Your task to perform on an android device: clear history in the chrome app Image 0: 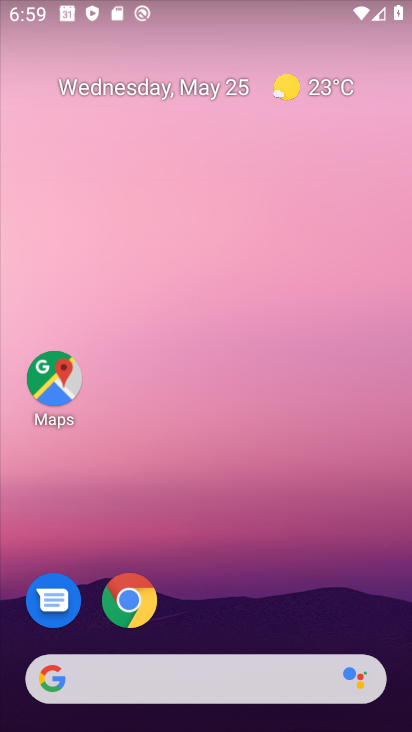
Step 0: click (129, 600)
Your task to perform on an android device: clear history in the chrome app Image 1: 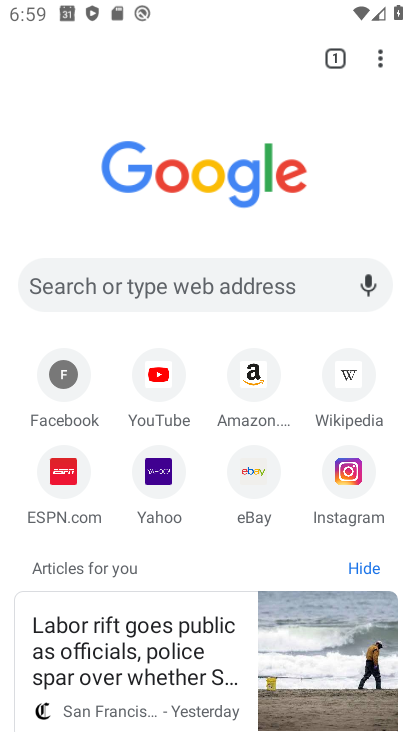
Step 1: click (381, 60)
Your task to perform on an android device: clear history in the chrome app Image 2: 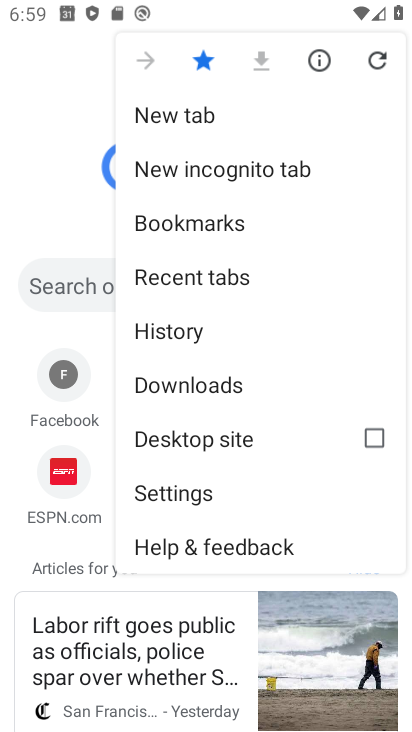
Step 2: click (180, 327)
Your task to perform on an android device: clear history in the chrome app Image 3: 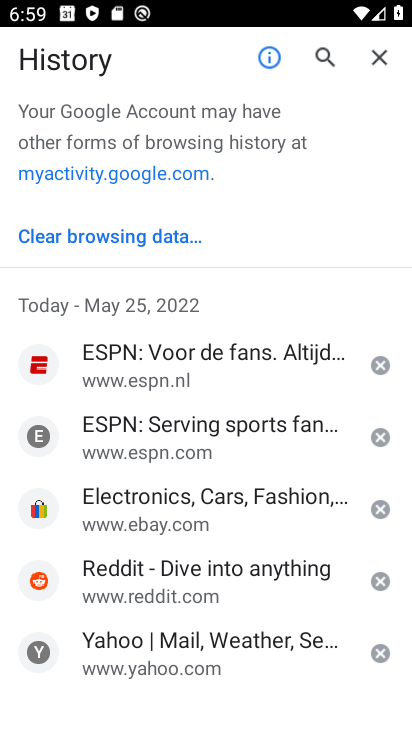
Step 3: click (145, 240)
Your task to perform on an android device: clear history in the chrome app Image 4: 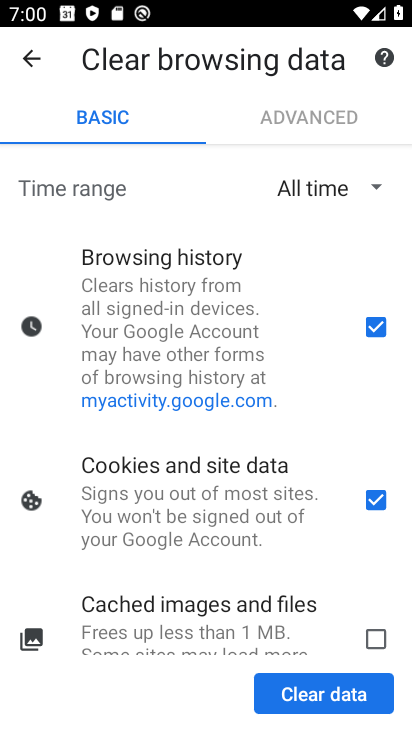
Step 4: click (381, 640)
Your task to perform on an android device: clear history in the chrome app Image 5: 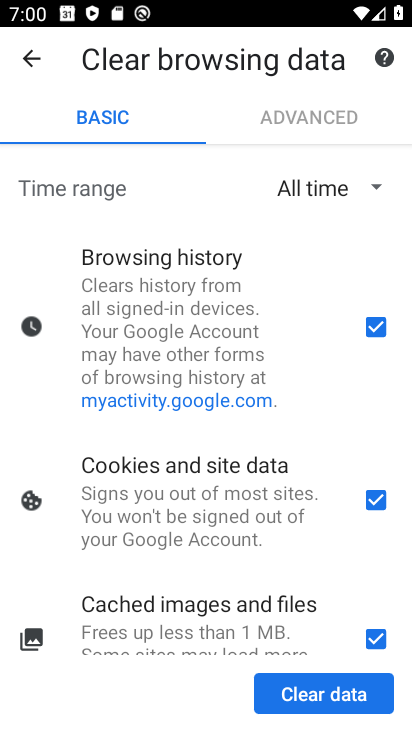
Step 5: click (327, 688)
Your task to perform on an android device: clear history in the chrome app Image 6: 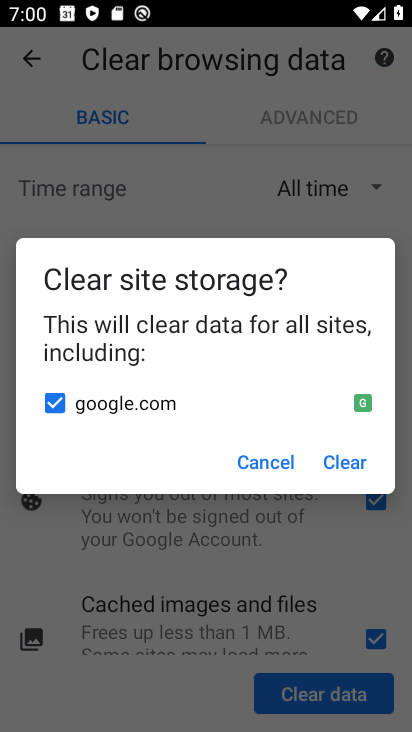
Step 6: click (346, 461)
Your task to perform on an android device: clear history in the chrome app Image 7: 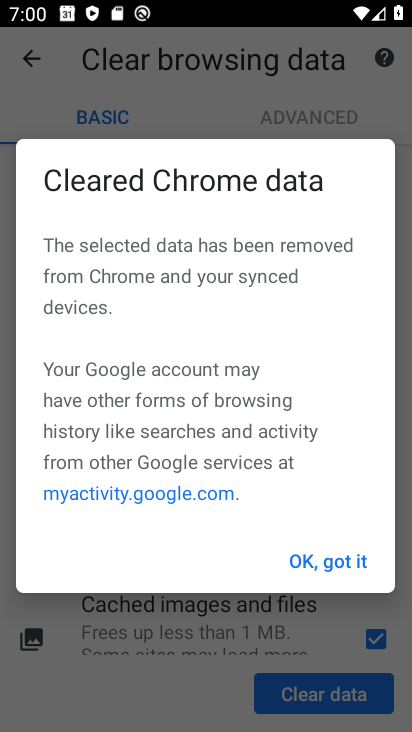
Step 7: click (338, 563)
Your task to perform on an android device: clear history in the chrome app Image 8: 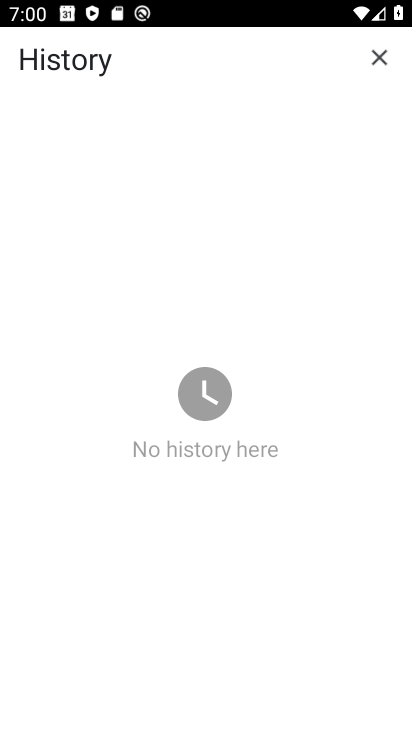
Step 8: task complete